Your task to perform on an android device: Search for sushi restaurants on Maps Image 0: 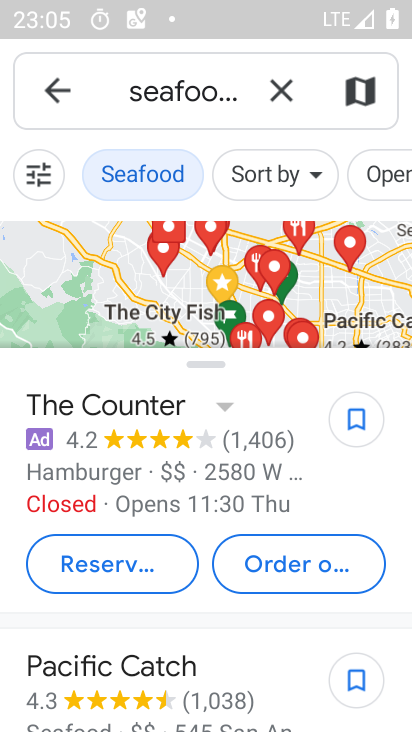
Step 0: click (271, 95)
Your task to perform on an android device: Search for sushi restaurants on Maps Image 1: 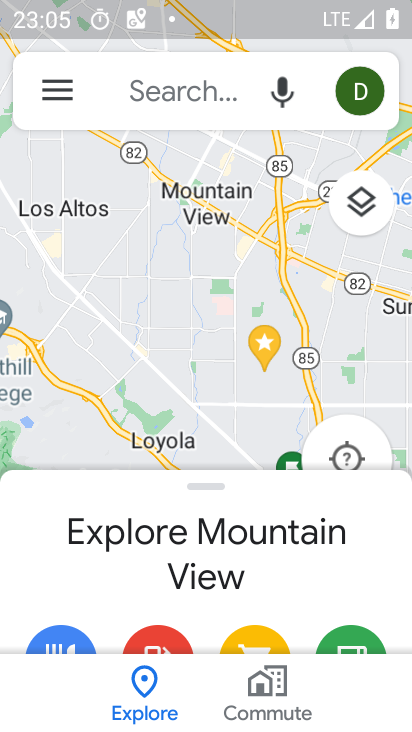
Step 1: click (179, 105)
Your task to perform on an android device: Search for sushi restaurants on Maps Image 2: 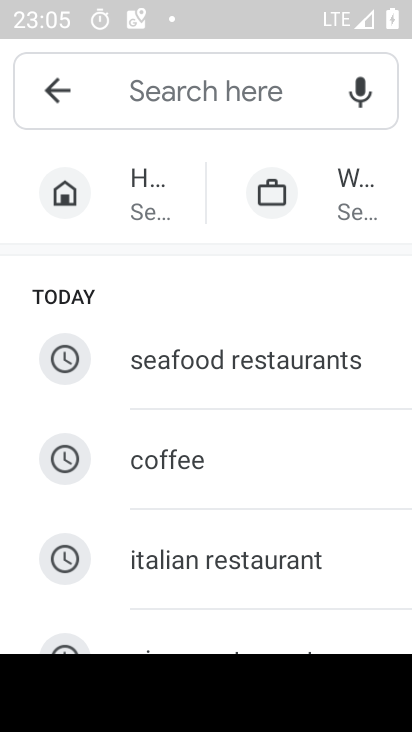
Step 2: type "sushi restaurants"
Your task to perform on an android device: Search for sushi restaurants on Maps Image 3: 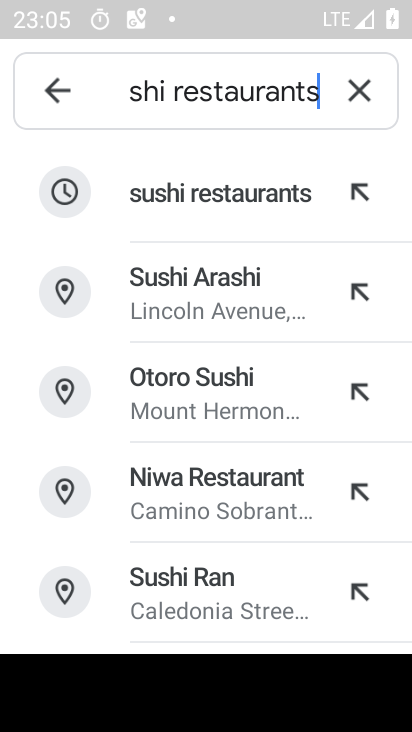
Step 3: click (252, 180)
Your task to perform on an android device: Search for sushi restaurants on Maps Image 4: 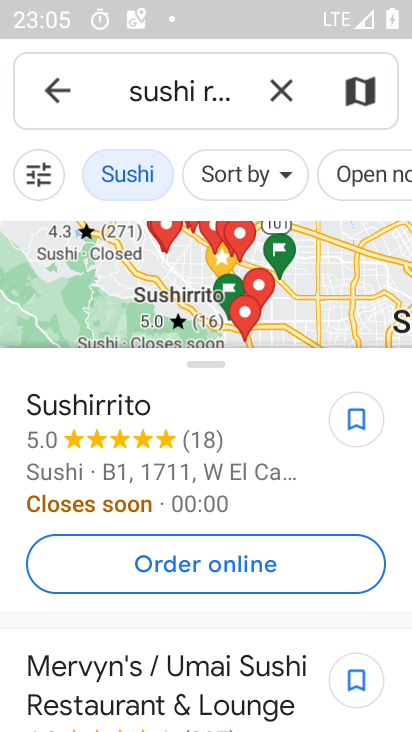
Step 4: task complete